Your task to perform on an android device: change timer sound Image 0: 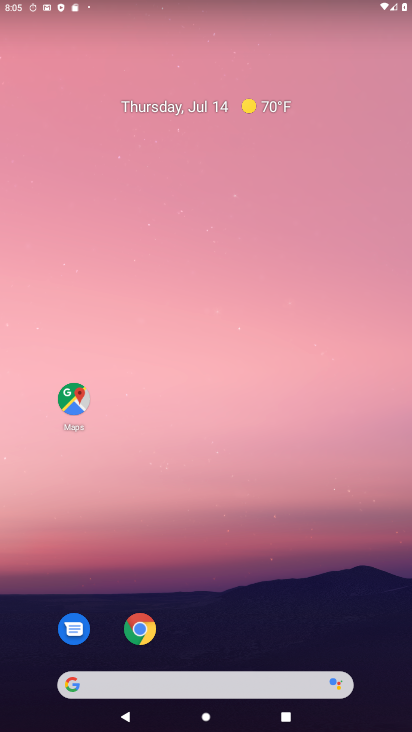
Step 0: drag from (292, 578) to (248, 87)
Your task to perform on an android device: change timer sound Image 1: 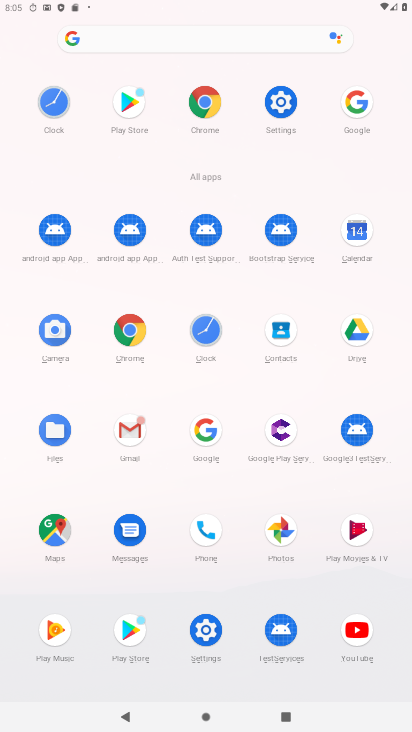
Step 1: click (273, 105)
Your task to perform on an android device: change timer sound Image 2: 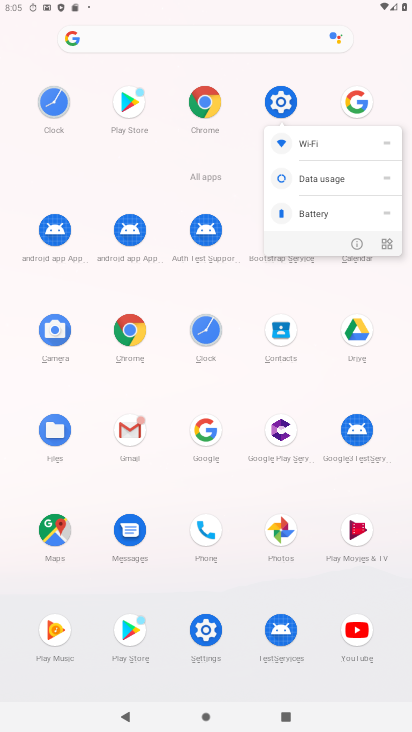
Step 2: click (273, 103)
Your task to perform on an android device: change timer sound Image 3: 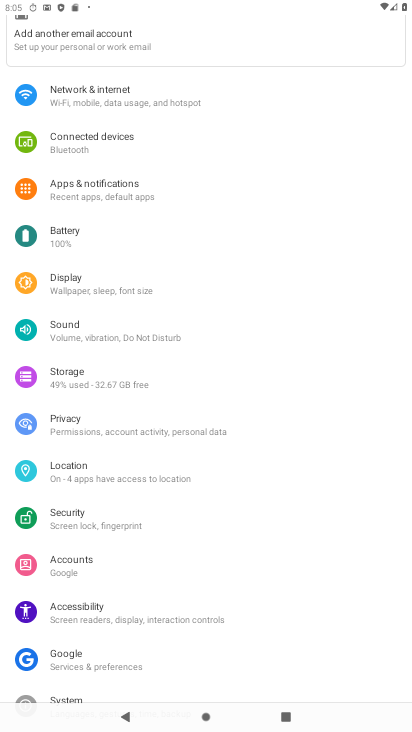
Step 3: press home button
Your task to perform on an android device: change timer sound Image 4: 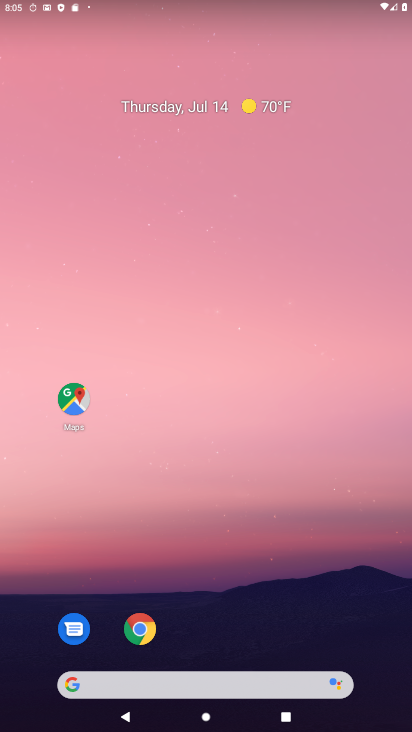
Step 4: drag from (372, 581) to (379, 11)
Your task to perform on an android device: change timer sound Image 5: 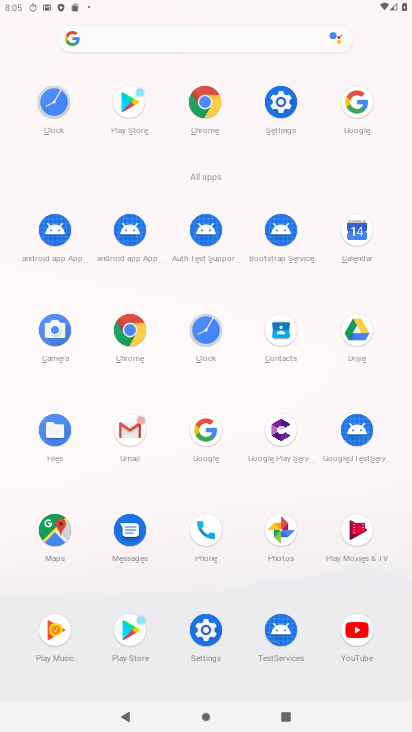
Step 5: click (208, 336)
Your task to perform on an android device: change timer sound Image 6: 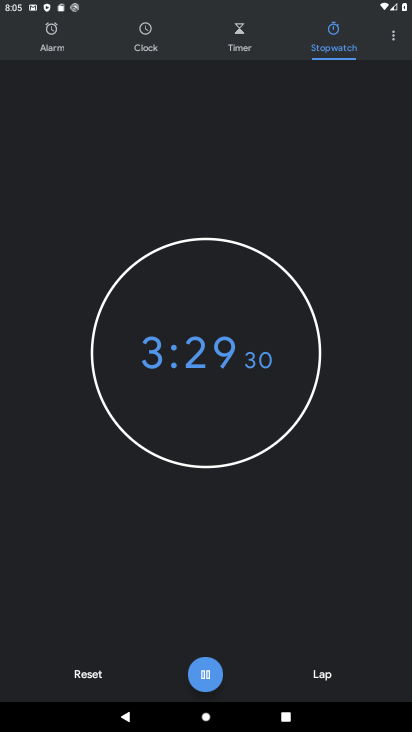
Step 6: click (396, 40)
Your task to perform on an android device: change timer sound Image 7: 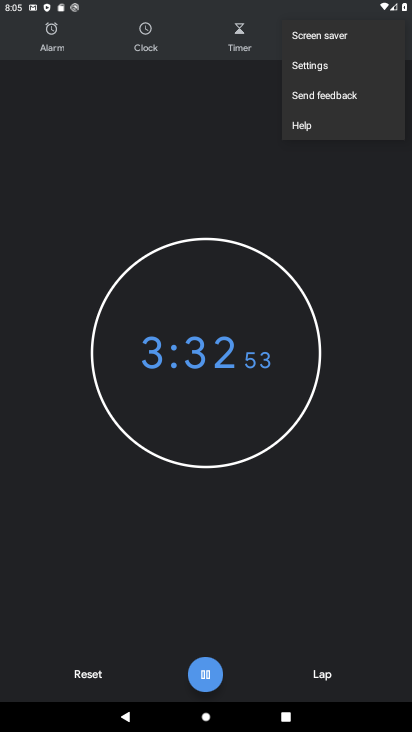
Step 7: click (298, 60)
Your task to perform on an android device: change timer sound Image 8: 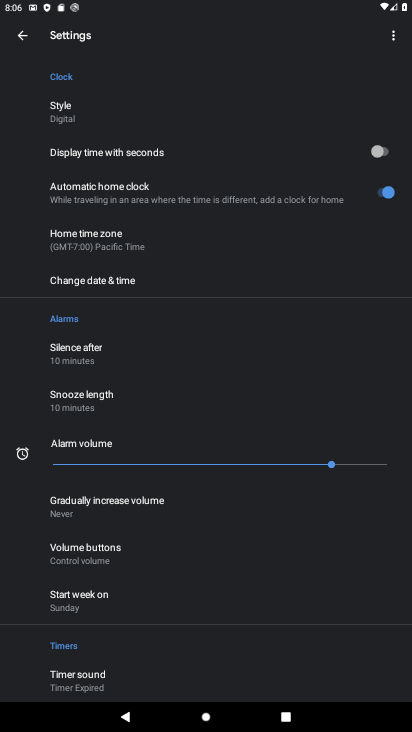
Step 8: drag from (149, 618) to (242, 233)
Your task to perform on an android device: change timer sound Image 9: 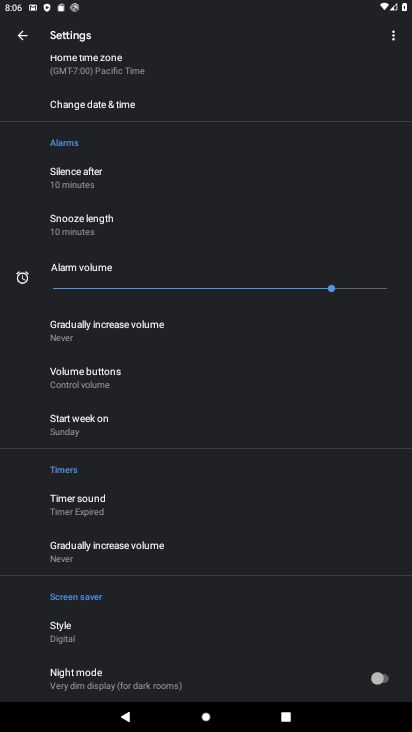
Step 9: click (76, 501)
Your task to perform on an android device: change timer sound Image 10: 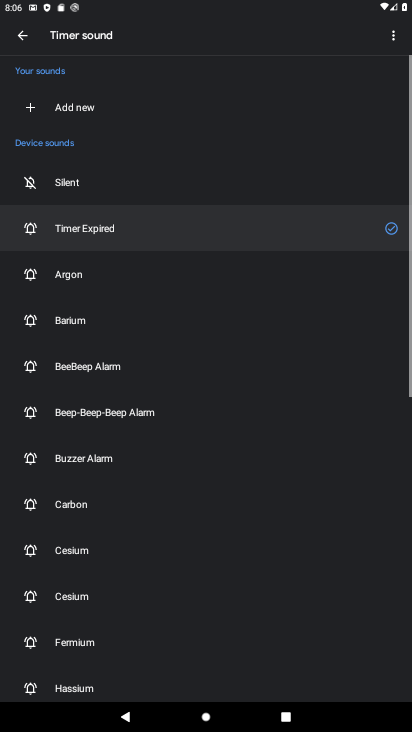
Step 10: click (75, 287)
Your task to perform on an android device: change timer sound Image 11: 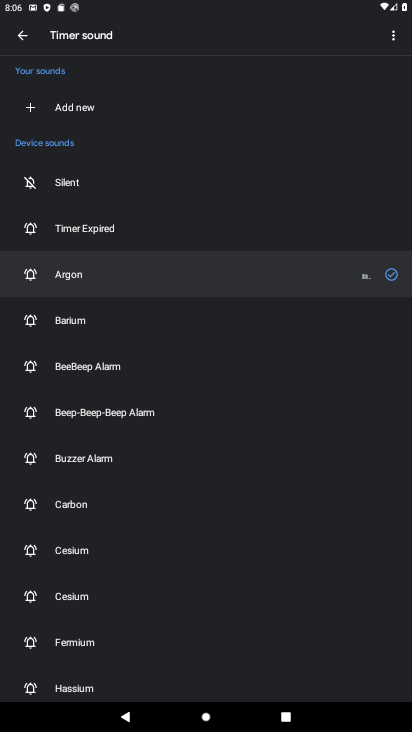
Step 11: task complete